Your task to perform on an android device: Go to privacy settings Image 0: 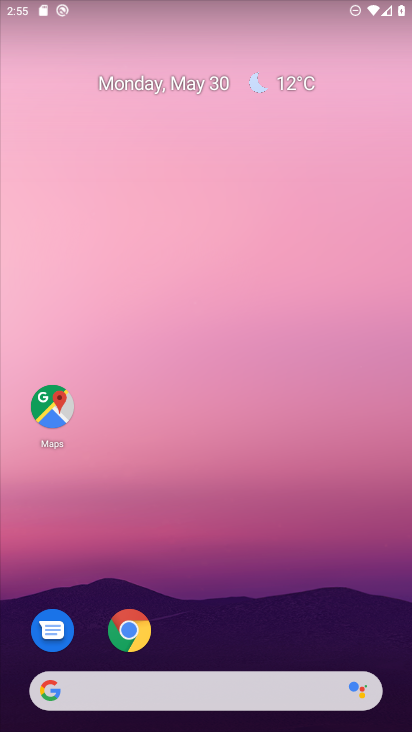
Step 0: drag from (274, 649) to (298, 20)
Your task to perform on an android device: Go to privacy settings Image 1: 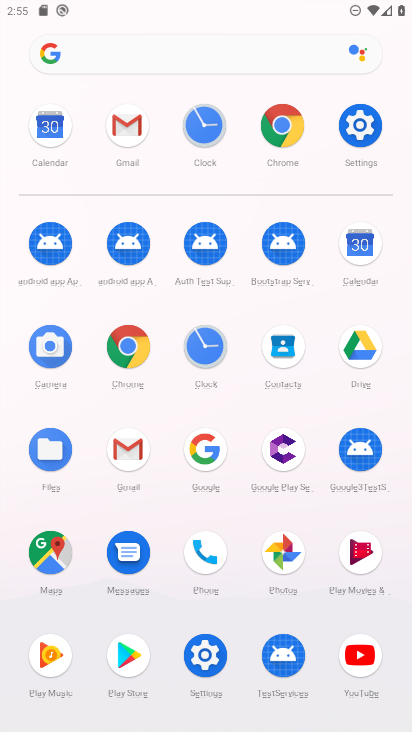
Step 1: click (356, 137)
Your task to perform on an android device: Go to privacy settings Image 2: 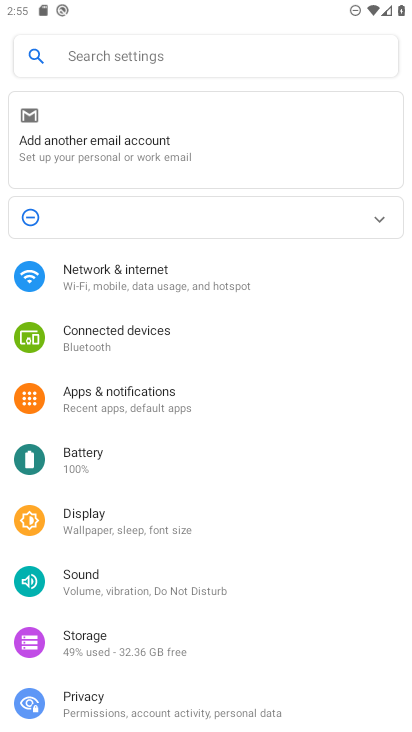
Step 2: click (116, 691)
Your task to perform on an android device: Go to privacy settings Image 3: 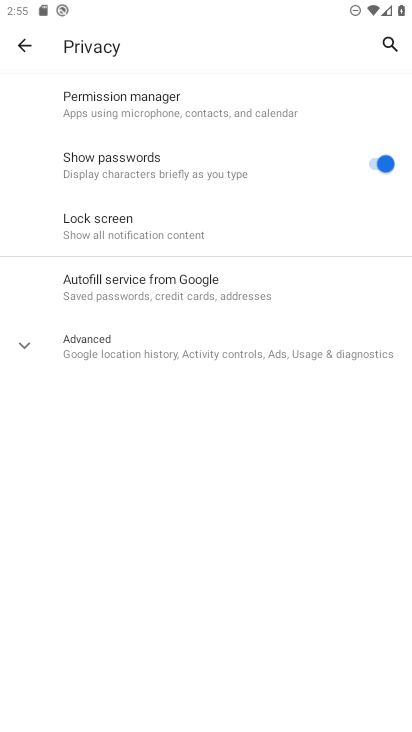
Step 3: task complete